Your task to perform on an android device: turn notification dots on Image 0: 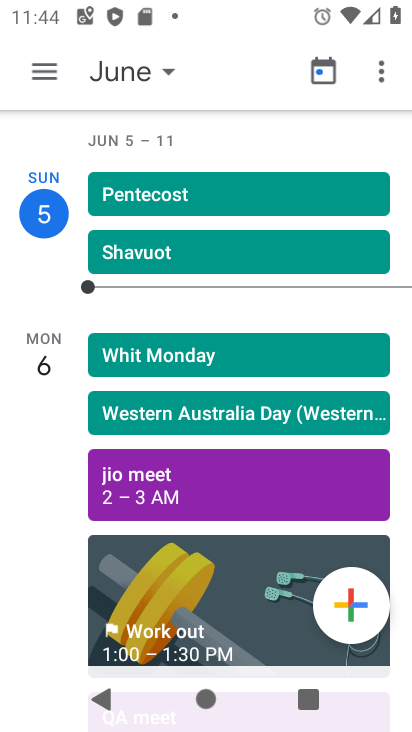
Step 0: press home button
Your task to perform on an android device: turn notification dots on Image 1: 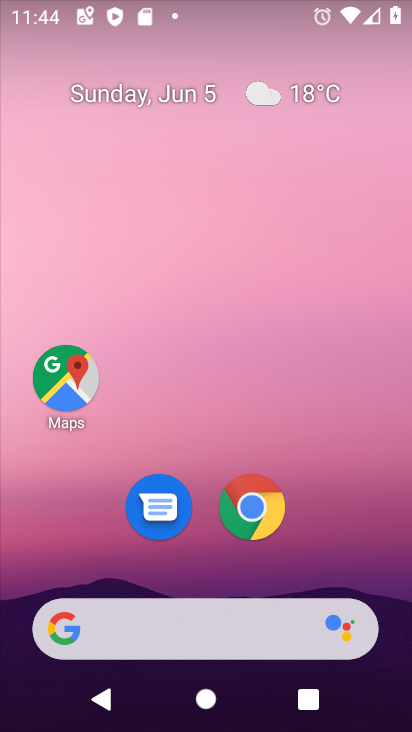
Step 1: drag from (246, 718) to (250, 79)
Your task to perform on an android device: turn notification dots on Image 2: 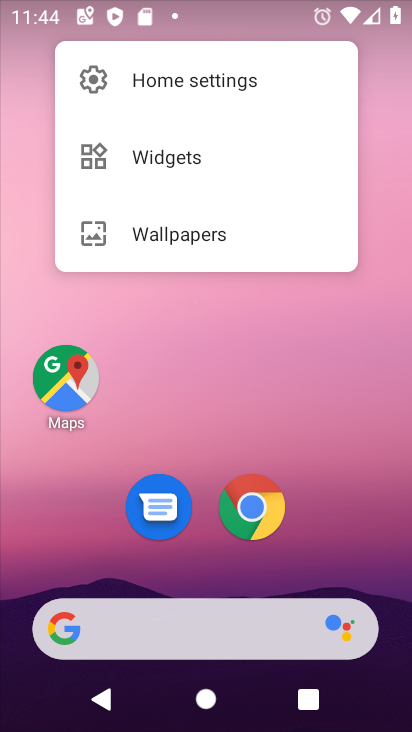
Step 2: click (215, 345)
Your task to perform on an android device: turn notification dots on Image 3: 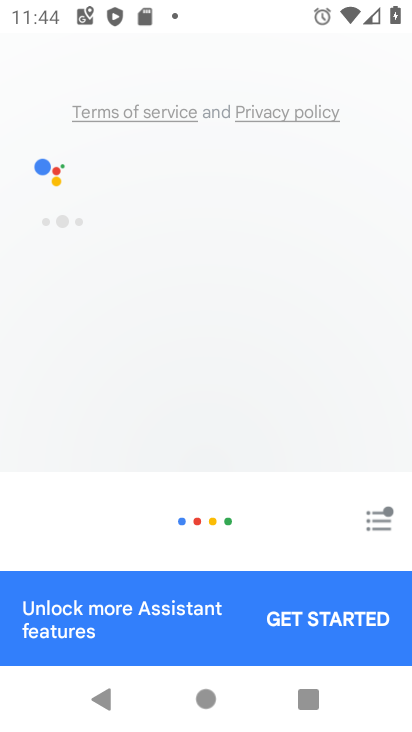
Step 3: press home button
Your task to perform on an android device: turn notification dots on Image 4: 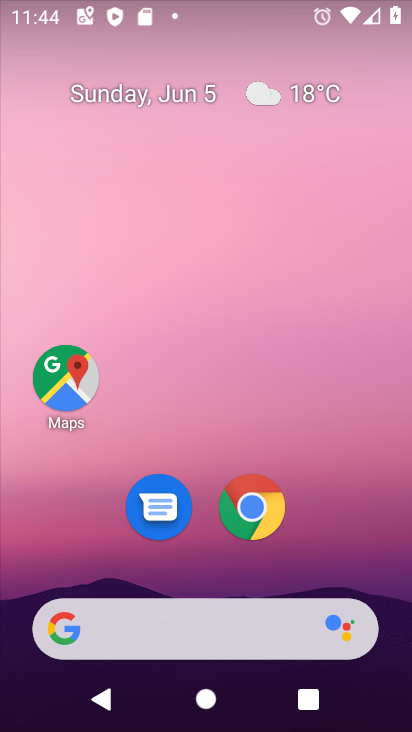
Step 4: drag from (219, 721) to (204, 100)
Your task to perform on an android device: turn notification dots on Image 5: 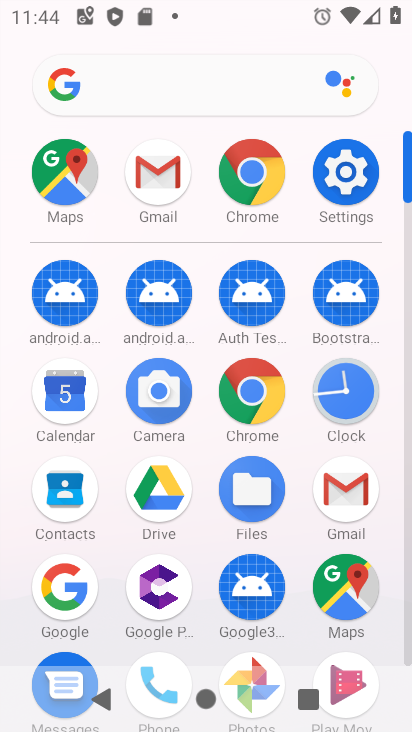
Step 5: click (359, 158)
Your task to perform on an android device: turn notification dots on Image 6: 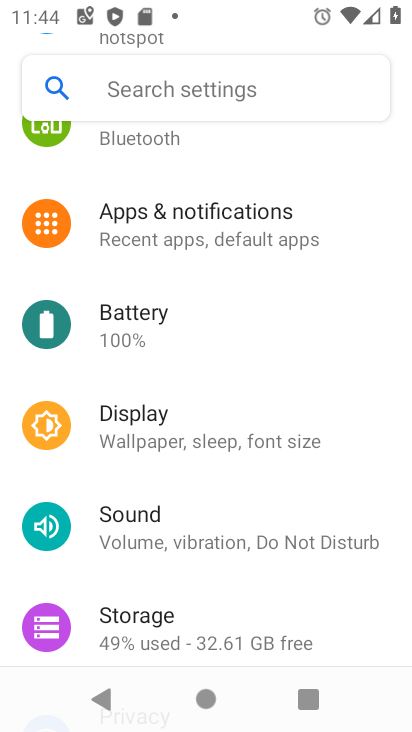
Step 6: click (192, 239)
Your task to perform on an android device: turn notification dots on Image 7: 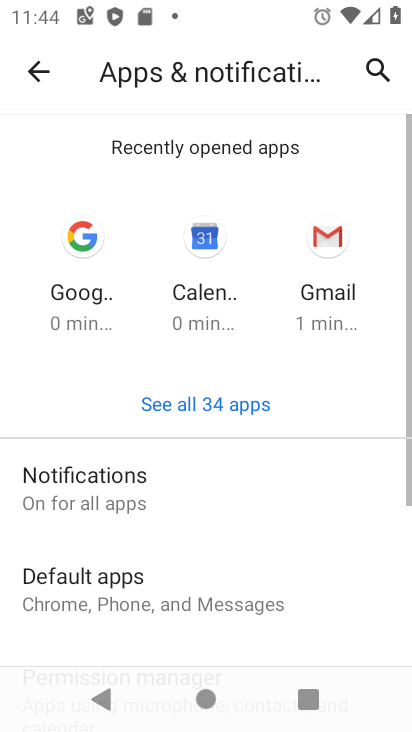
Step 7: click (93, 495)
Your task to perform on an android device: turn notification dots on Image 8: 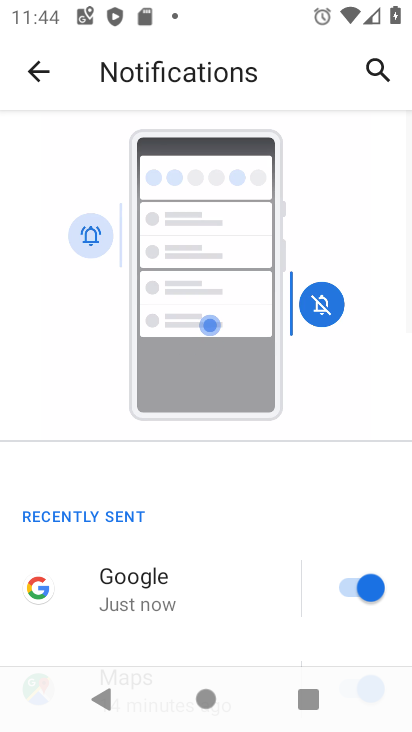
Step 8: drag from (227, 637) to (207, 303)
Your task to perform on an android device: turn notification dots on Image 9: 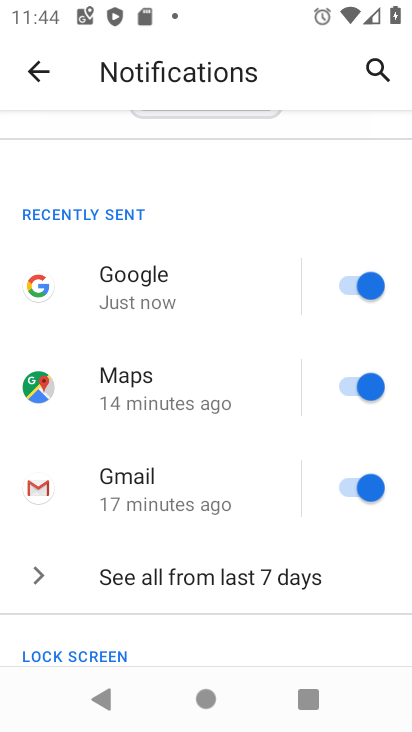
Step 9: drag from (247, 645) to (219, 310)
Your task to perform on an android device: turn notification dots on Image 10: 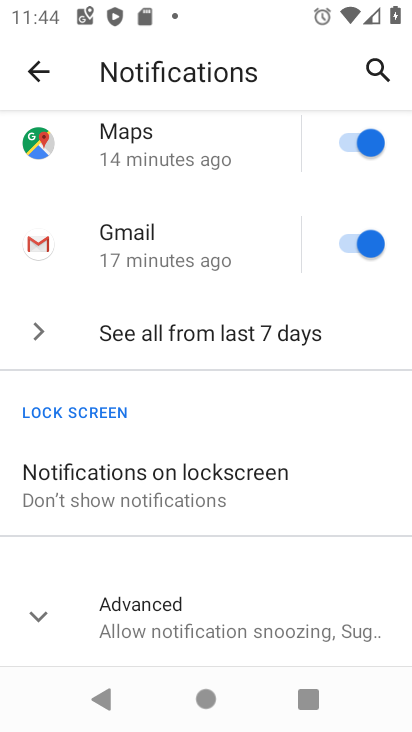
Step 10: click (237, 622)
Your task to perform on an android device: turn notification dots on Image 11: 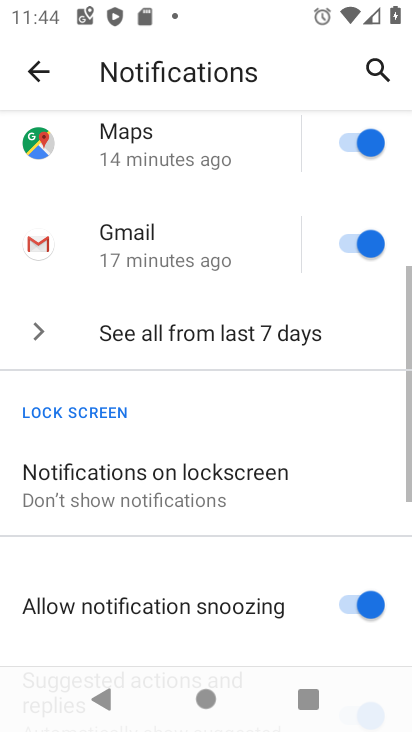
Step 11: task complete